Your task to perform on an android device: Open Yahoo.com Image 0: 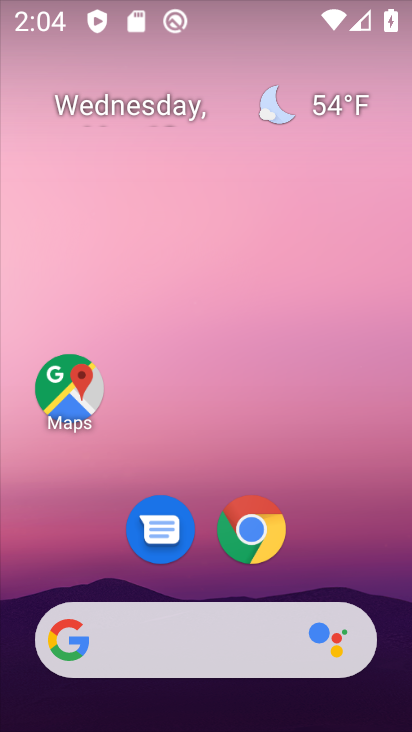
Step 0: click (243, 534)
Your task to perform on an android device: Open Yahoo.com Image 1: 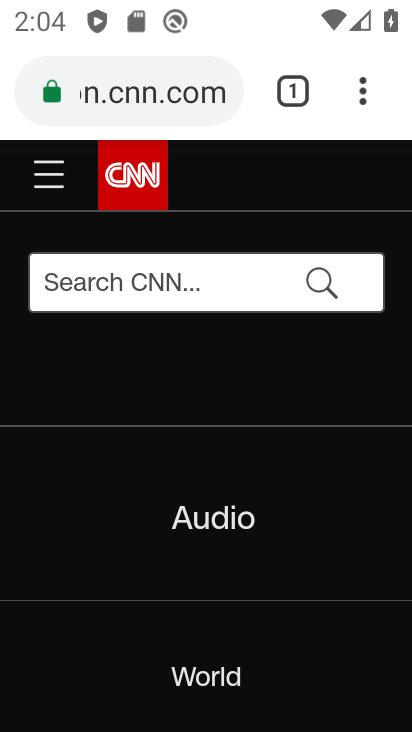
Step 1: click (303, 84)
Your task to perform on an android device: Open Yahoo.com Image 2: 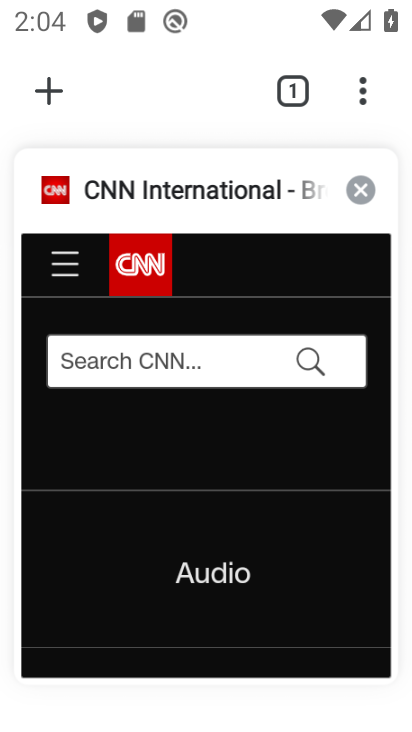
Step 2: click (61, 85)
Your task to perform on an android device: Open Yahoo.com Image 3: 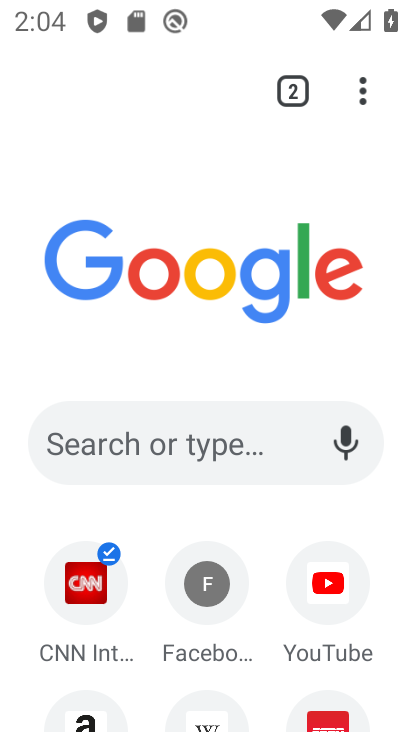
Step 3: drag from (185, 648) to (249, 202)
Your task to perform on an android device: Open Yahoo.com Image 4: 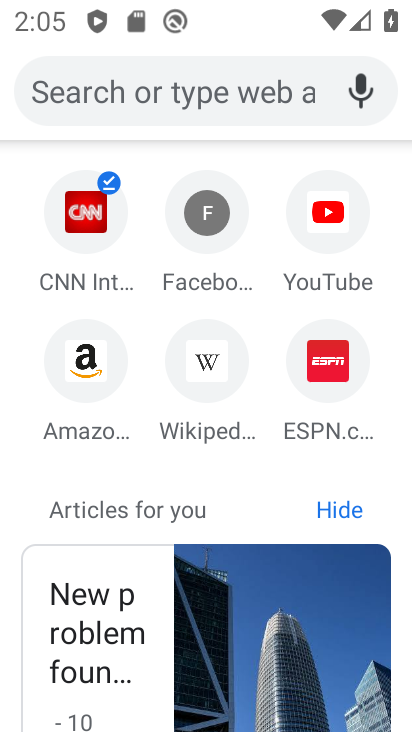
Step 4: click (130, 99)
Your task to perform on an android device: Open Yahoo.com Image 5: 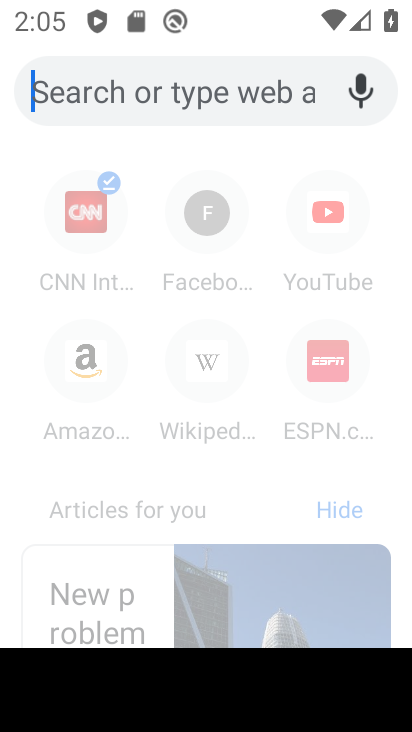
Step 5: type "yahoo.ocm"
Your task to perform on an android device: Open Yahoo.com Image 6: 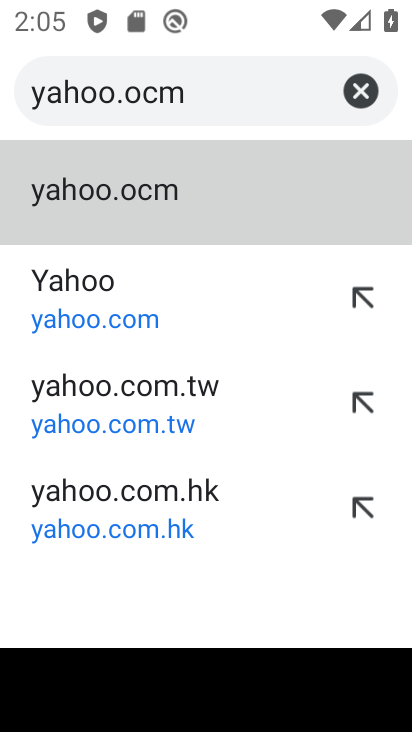
Step 6: click (81, 291)
Your task to perform on an android device: Open Yahoo.com Image 7: 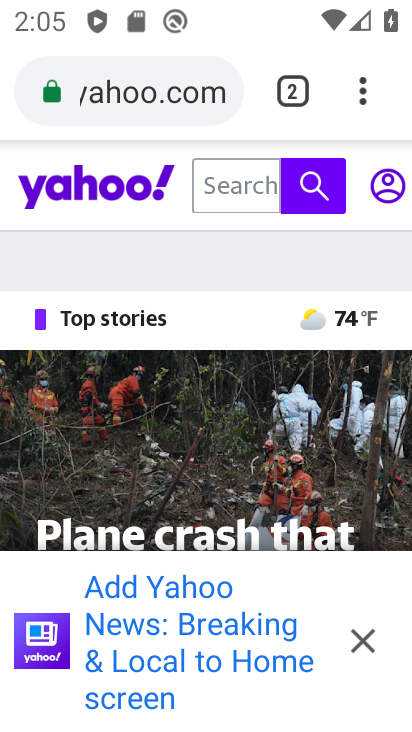
Step 7: task complete